Your task to perform on an android device: set an alarm Image 0: 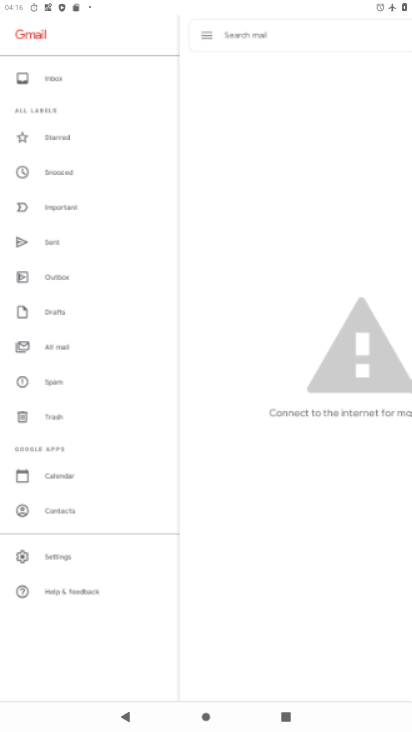
Step 0: drag from (366, 613) to (271, 95)
Your task to perform on an android device: set an alarm Image 1: 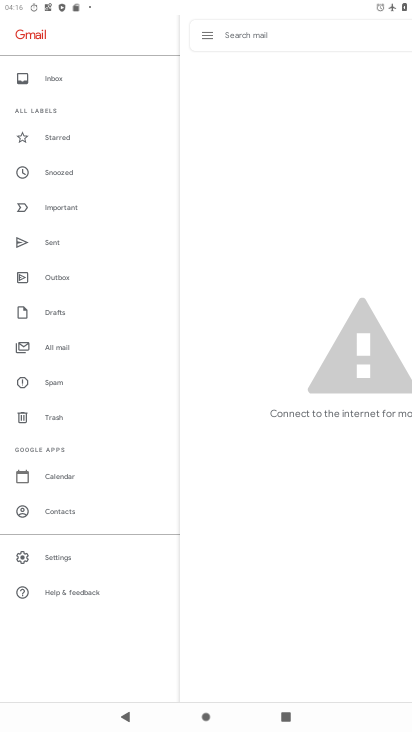
Step 1: press home button
Your task to perform on an android device: set an alarm Image 2: 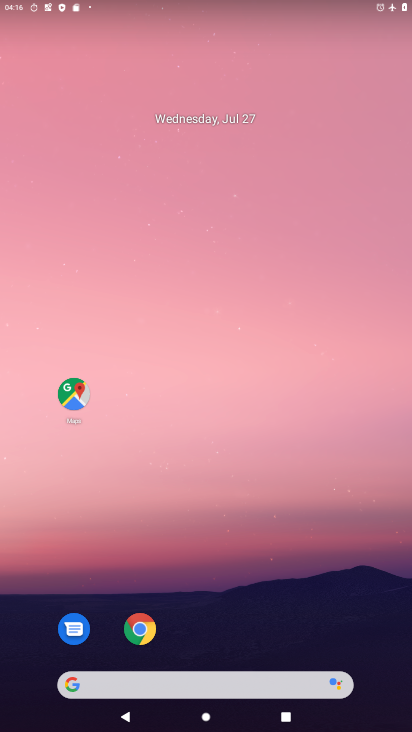
Step 2: drag from (290, 579) to (219, 66)
Your task to perform on an android device: set an alarm Image 3: 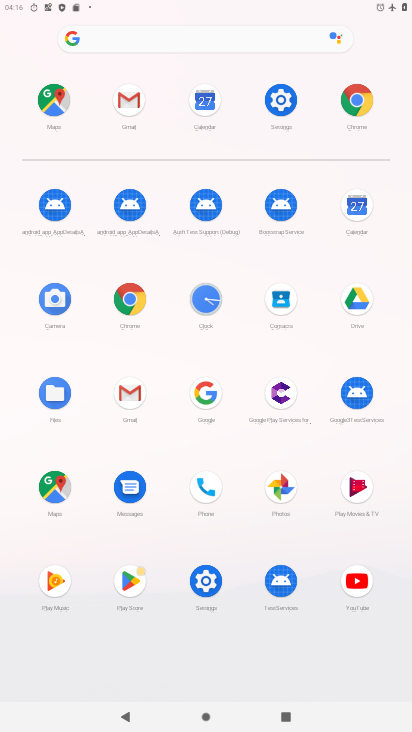
Step 3: click (210, 301)
Your task to perform on an android device: set an alarm Image 4: 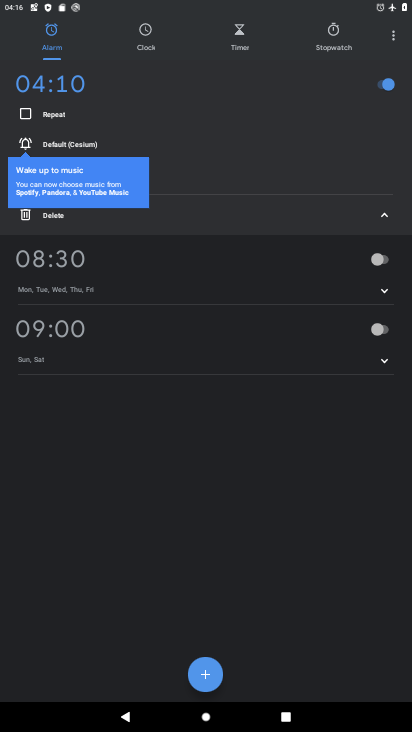
Step 4: click (202, 676)
Your task to perform on an android device: set an alarm Image 5: 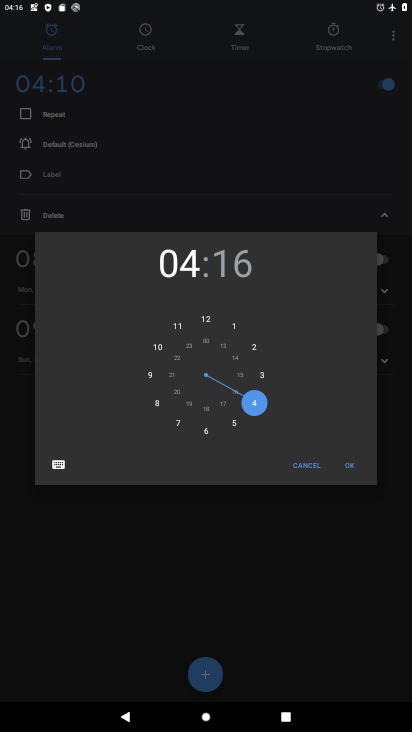
Step 5: click (356, 472)
Your task to perform on an android device: set an alarm Image 6: 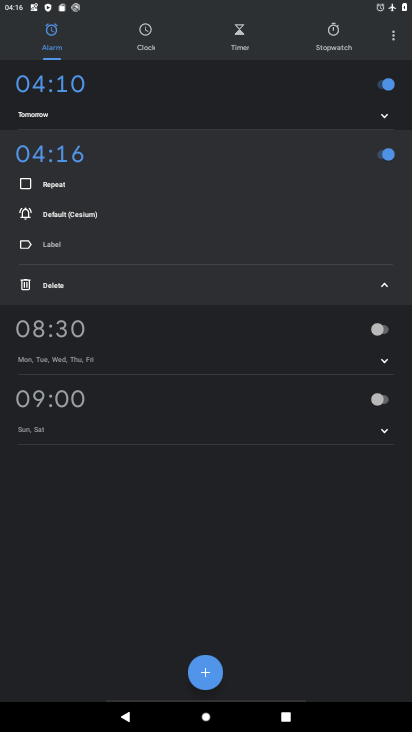
Step 6: task complete